Your task to perform on an android device: Open the phone app and click the voicemail tab. Image 0: 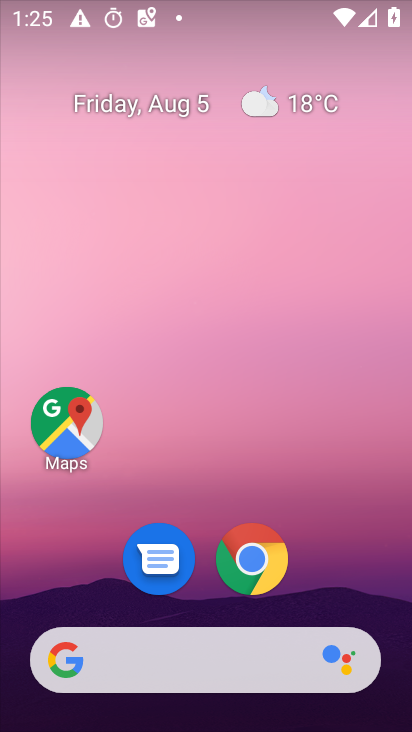
Step 0: drag from (58, 729) to (195, 478)
Your task to perform on an android device: Open the phone app and click the voicemail tab. Image 1: 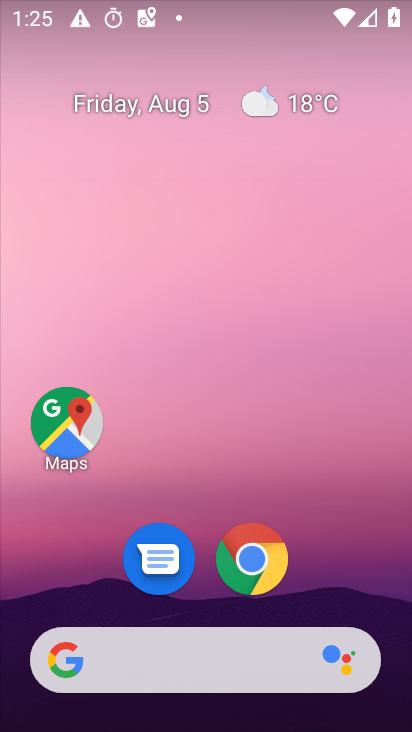
Step 1: drag from (45, 692) to (159, 316)
Your task to perform on an android device: Open the phone app and click the voicemail tab. Image 2: 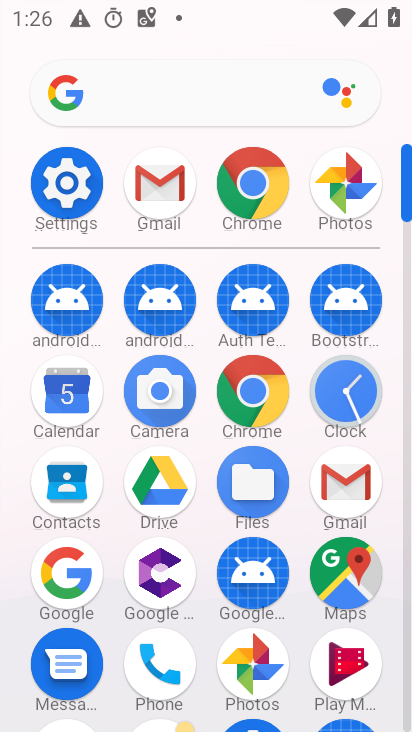
Step 2: click (175, 676)
Your task to perform on an android device: Open the phone app and click the voicemail tab. Image 3: 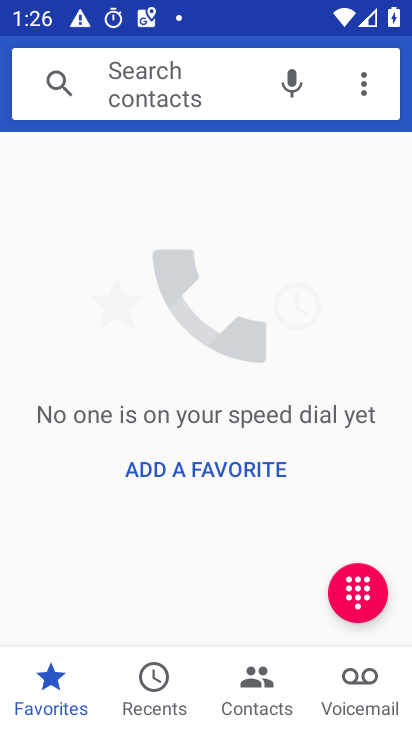
Step 3: click (332, 692)
Your task to perform on an android device: Open the phone app and click the voicemail tab. Image 4: 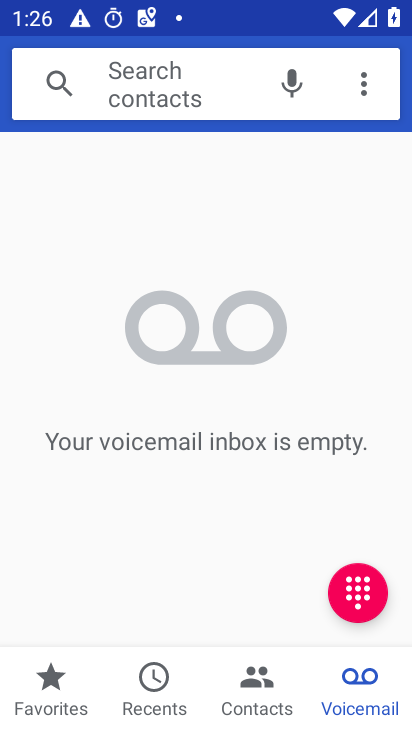
Step 4: task complete